Your task to perform on an android device: Open Android settings Image 0: 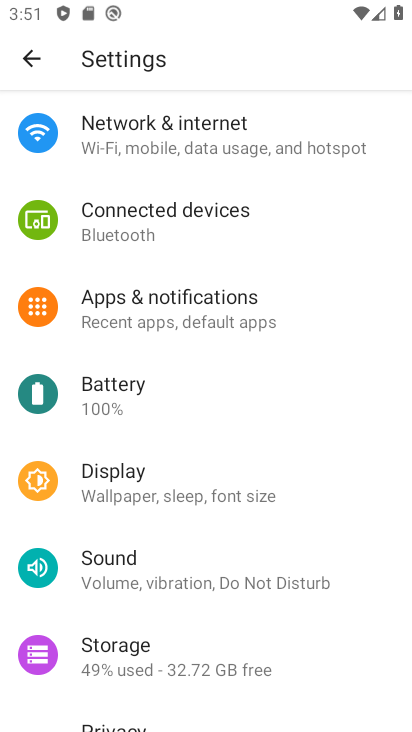
Step 0: press home button
Your task to perform on an android device: Open Android settings Image 1: 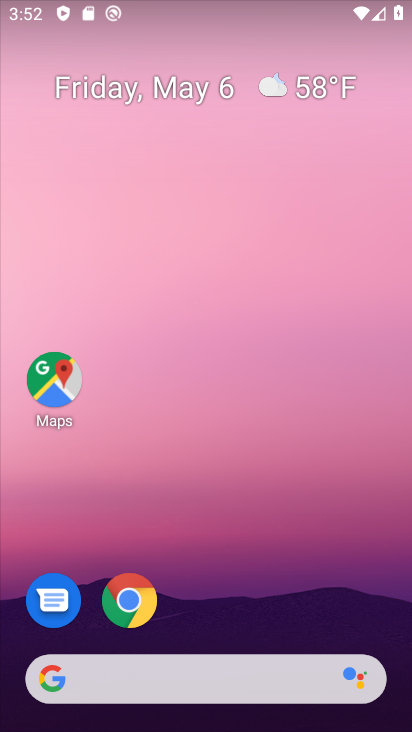
Step 1: drag from (215, 614) to (274, 102)
Your task to perform on an android device: Open Android settings Image 2: 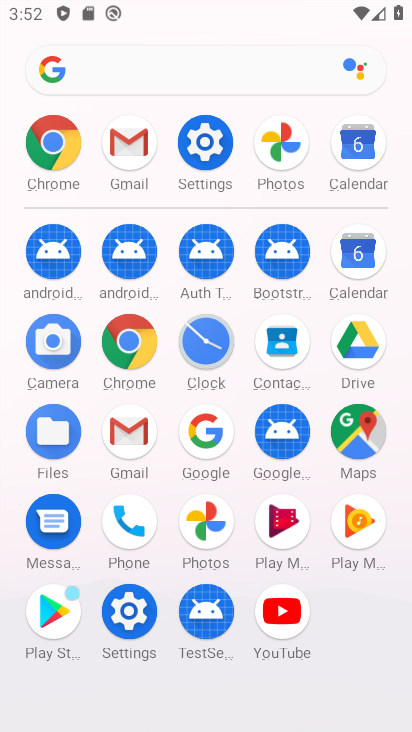
Step 2: click (145, 629)
Your task to perform on an android device: Open Android settings Image 3: 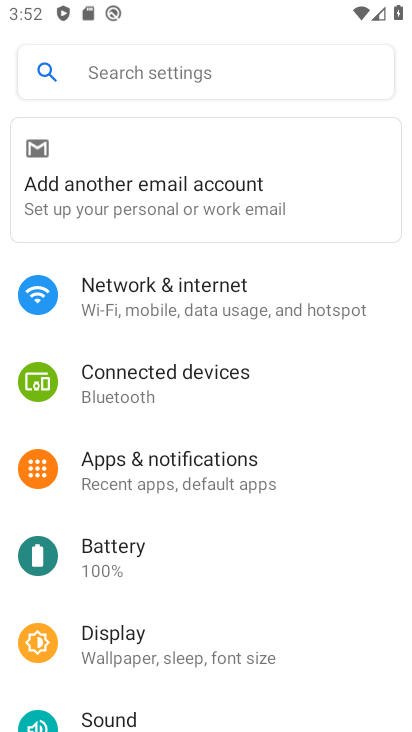
Step 3: drag from (164, 582) to (187, 186)
Your task to perform on an android device: Open Android settings Image 4: 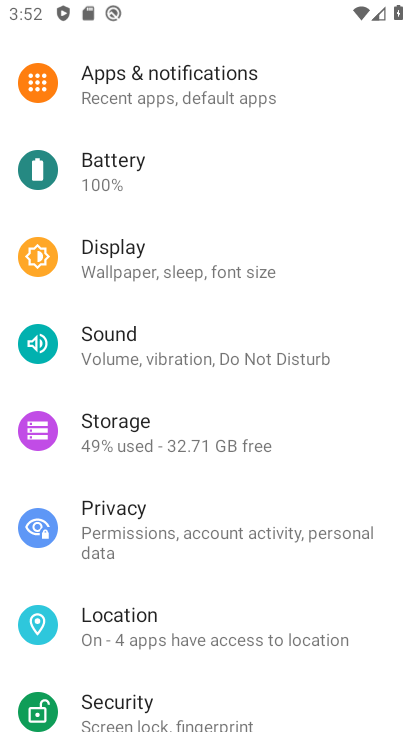
Step 4: drag from (173, 640) to (248, 60)
Your task to perform on an android device: Open Android settings Image 5: 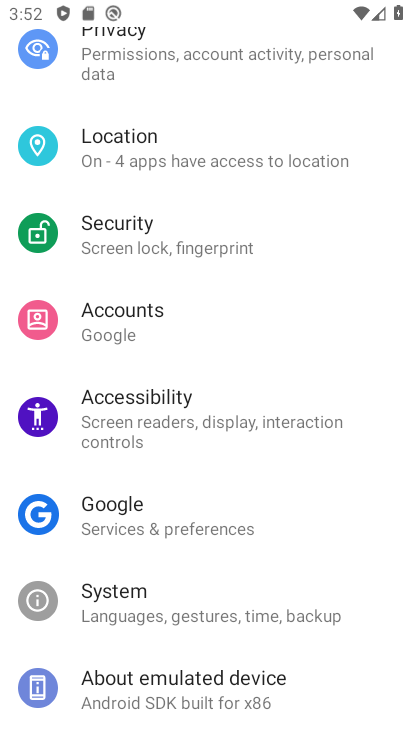
Step 5: click (165, 681)
Your task to perform on an android device: Open Android settings Image 6: 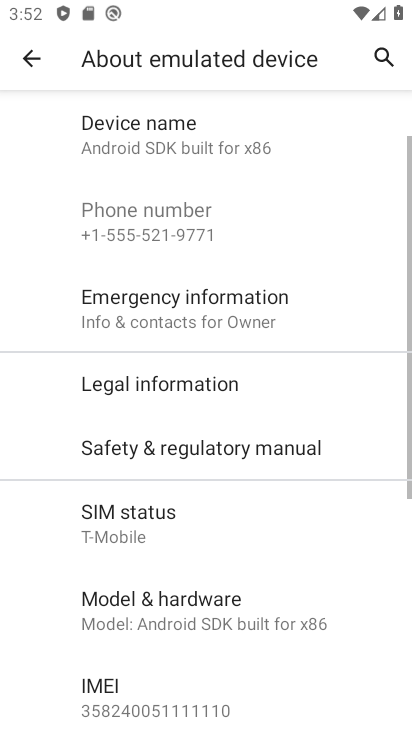
Step 6: drag from (144, 521) to (195, 241)
Your task to perform on an android device: Open Android settings Image 7: 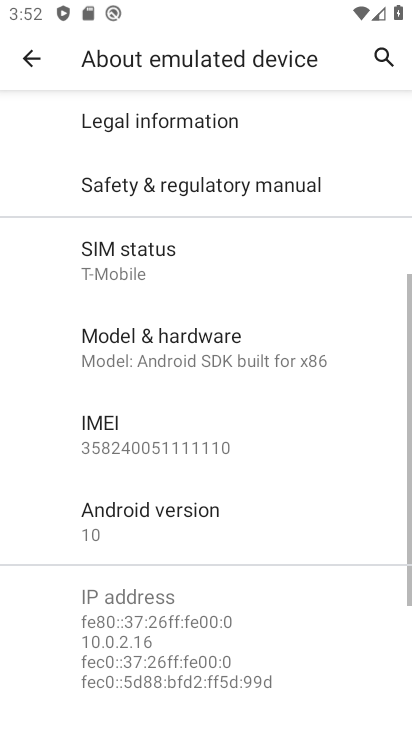
Step 7: drag from (197, 497) to (197, 253)
Your task to perform on an android device: Open Android settings Image 8: 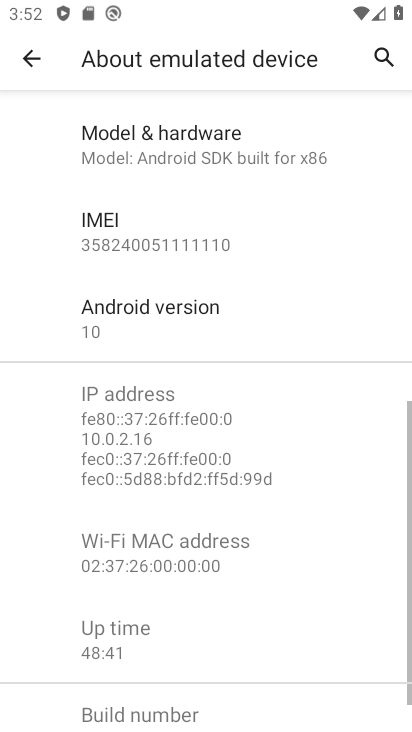
Step 8: click (142, 309)
Your task to perform on an android device: Open Android settings Image 9: 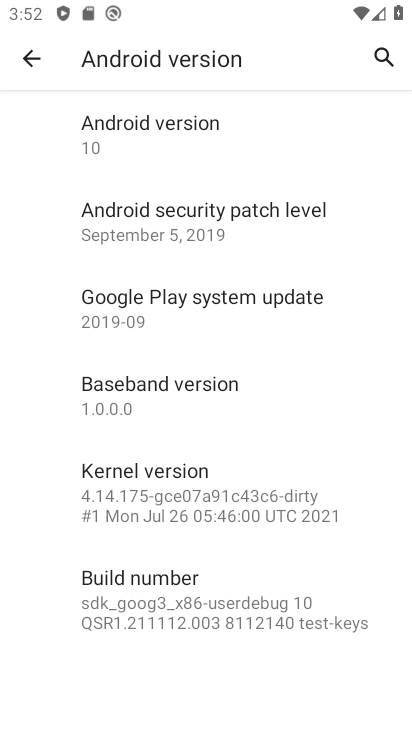
Step 9: task complete